Your task to perform on an android device: Go to Maps Image 0: 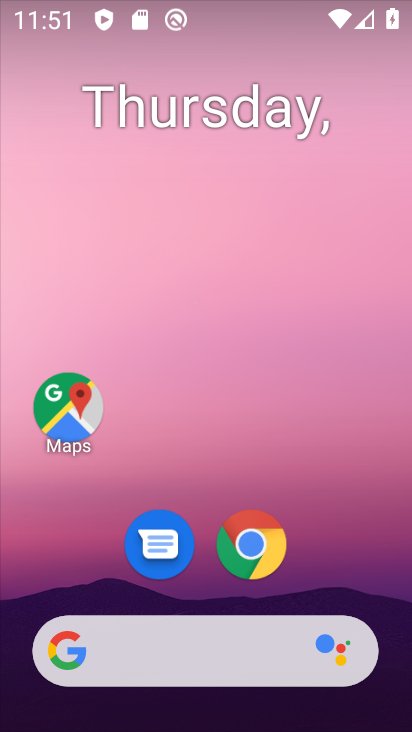
Step 0: drag from (213, 590) to (197, 9)
Your task to perform on an android device: Go to Maps Image 1: 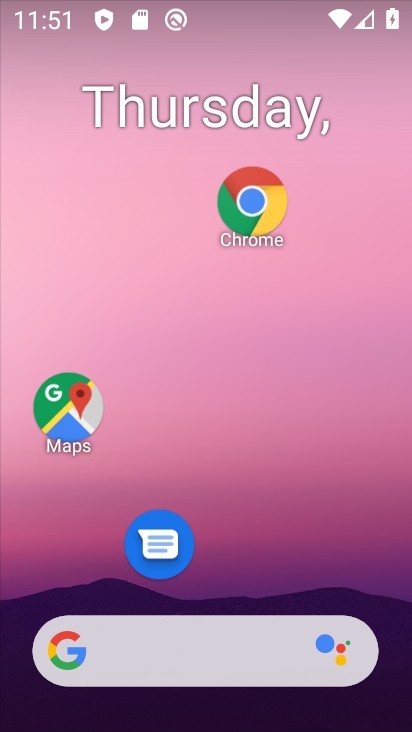
Step 1: drag from (211, 595) to (207, 11)
Your task to perform on an android device: Go to Maps Image 2: 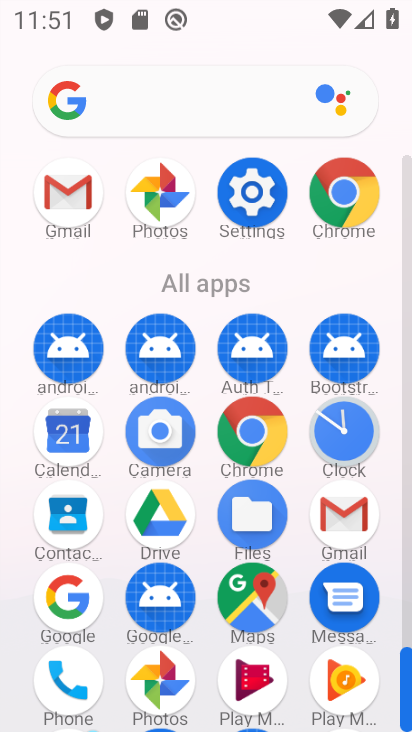
Step 2: click (250, 583)
Your task to perform on an android device: Go to Maps Image 3: 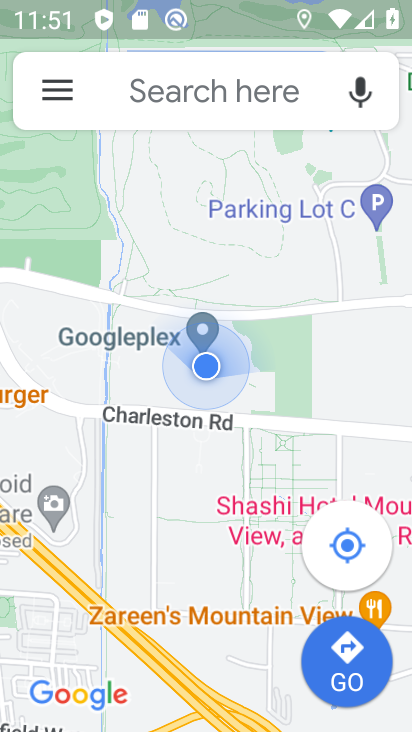
Step 3: task complete